Your task to perform on an android device: refresh tabs in the chrome app Image 0: 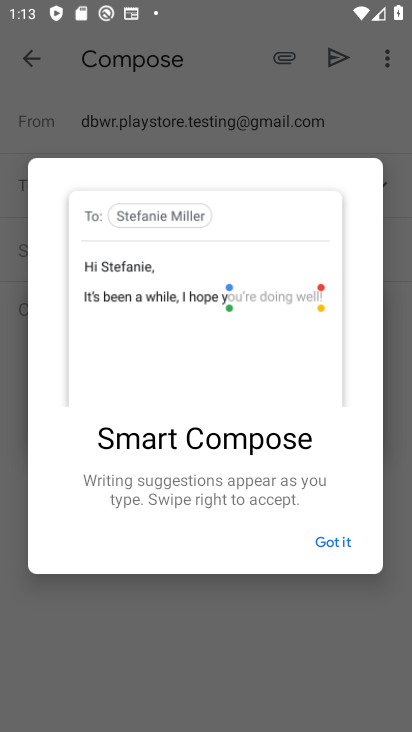
Step 0: press home button
Your task to perform on an android device: refresh tabs in the chrome app Image 1: 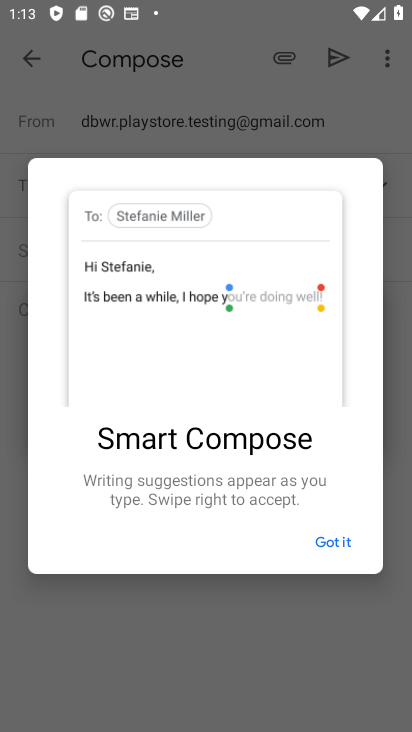
Step 1: press home button
Your task to perform on an android device: refresh tabs in the chrome app Image 2: 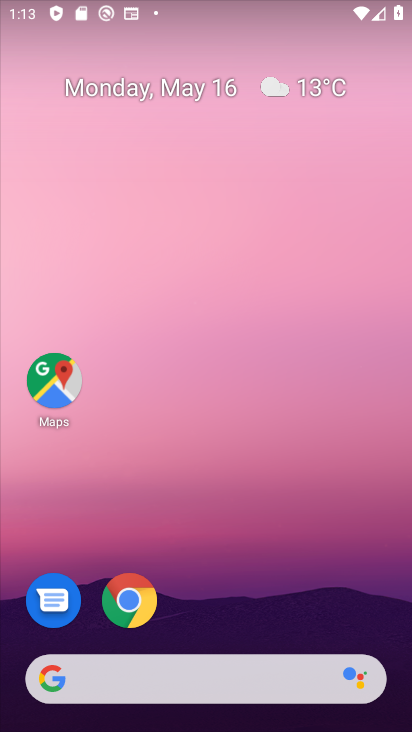
Step 2: click (146, 613)
Your task to perform on an android device: refresh tabs in the chrome app Image 3: 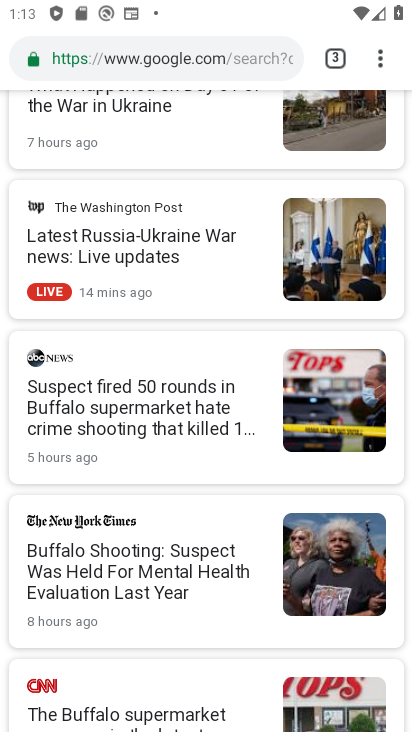
Step 3: click (384, 56)
Your task to perform on an android device: refresh tabs in the chrome app Image 4: 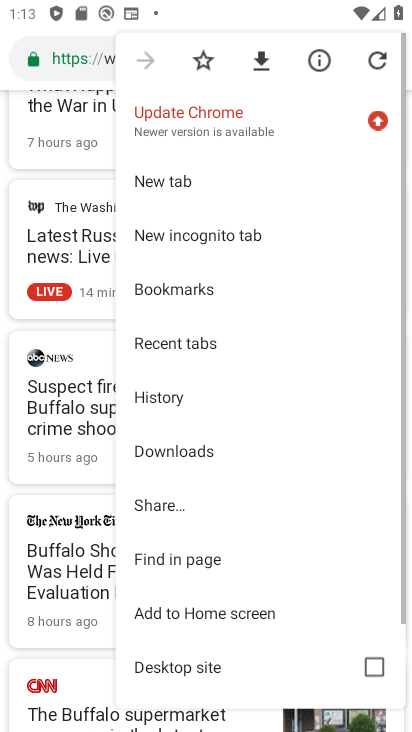
Step 4: click (384, 59)
Your task to perform on an android device: refresh tabs in the chrome app Image 5: 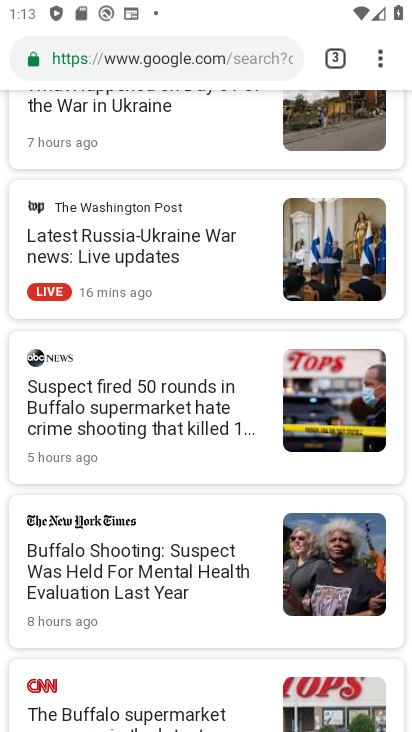
Step 5: task complete